Your task to perform on an android device: Search for pizza restaurants on Maps Image 0: 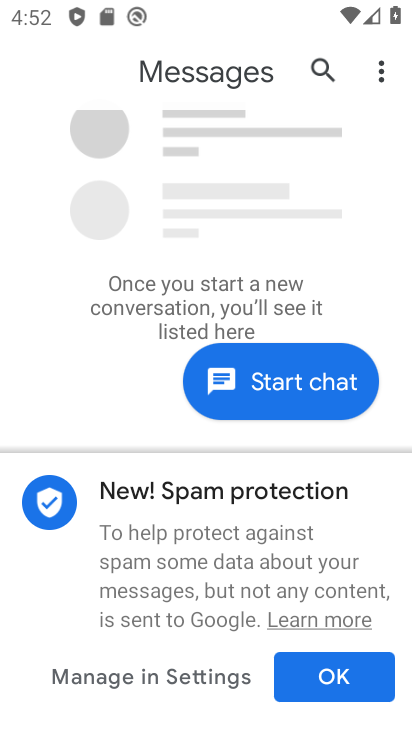
Step 0: press home button
Your task to perform on an android device: Search for pizza restaurants on Maps Image 1: 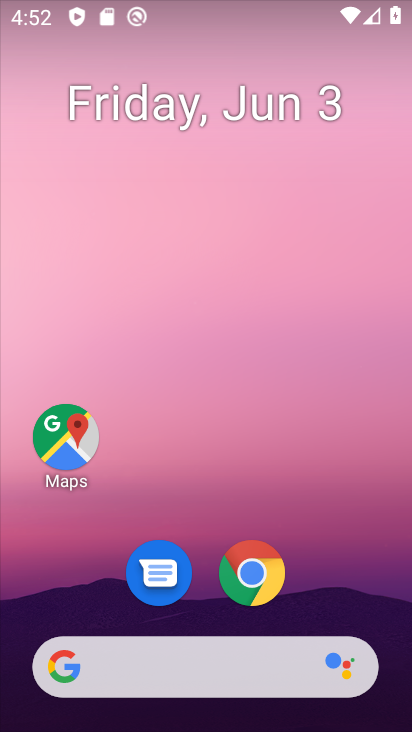
Step 1: click (68, 451)
Your task to perform on an android device: Search for pizza restaurants on Maps Image 2: 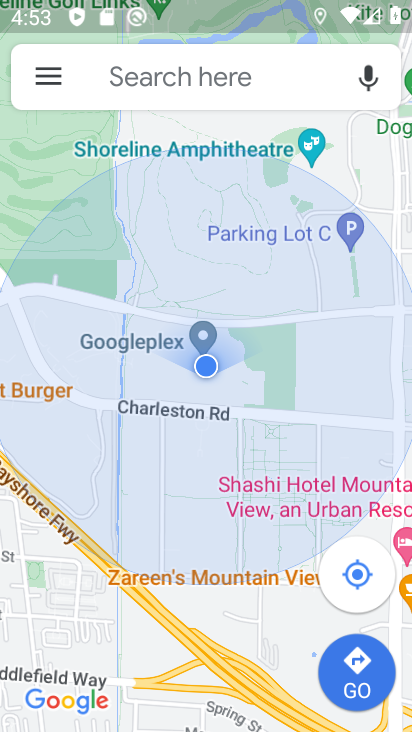
Step 2: click (236, 74)
Your task to perform on an android device: Search for pizza restaurants on Maps Image 3: 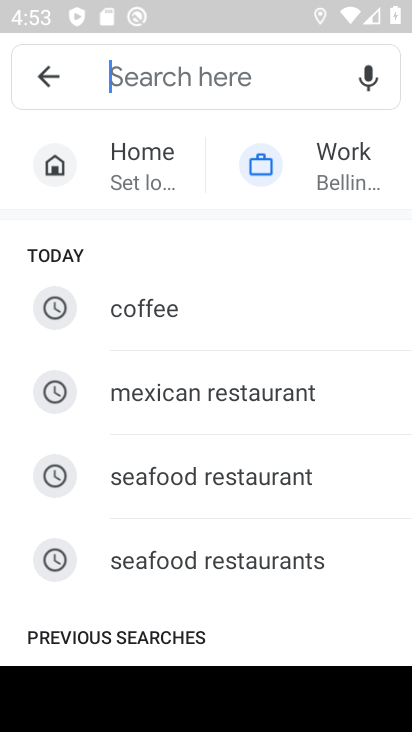
Step 3: drag from (272, 570) to (296, 228)
Your task to perform on an android device: Search for pizza restaurants on Maps Image 4: 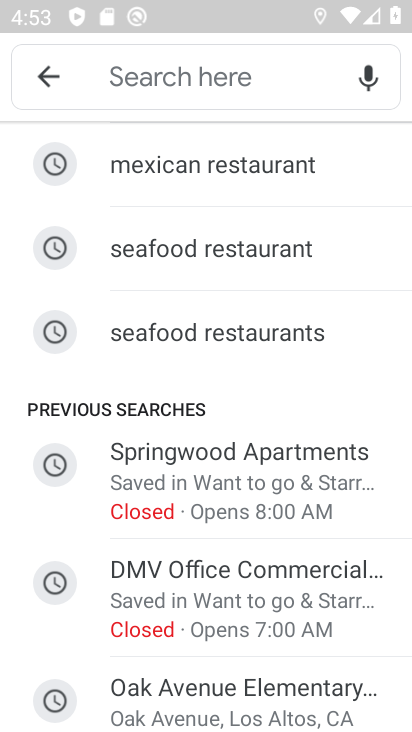
Step 4: click (198, 79)
Your task to perform on an android device: Search for pizza restaurants on Maps Image 5: 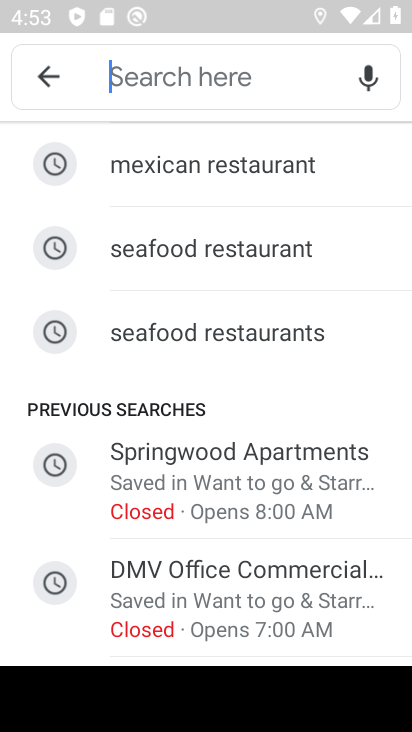
Step 5: type "pizza restaurants"
Your task to perform on an android device: Search for pizza restaurants on Maps Image 6: 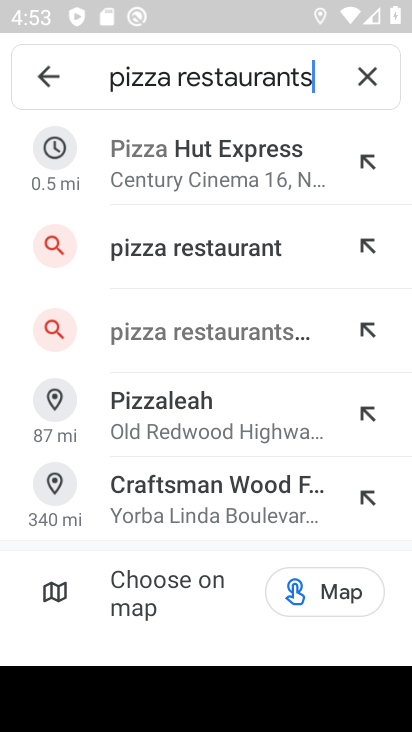
Step 6: click (203, 264)
Your task to perform on an android device: Search for pizza restaurants on Maps Image 7: 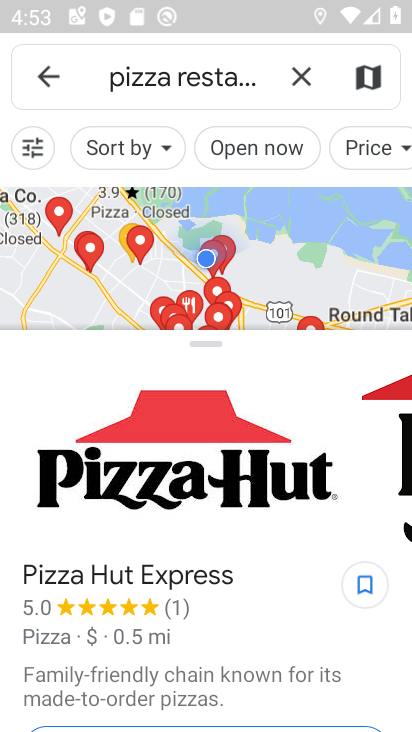
Step 7: task complete